Your task to perform on an android device: Go to settings Image 0: 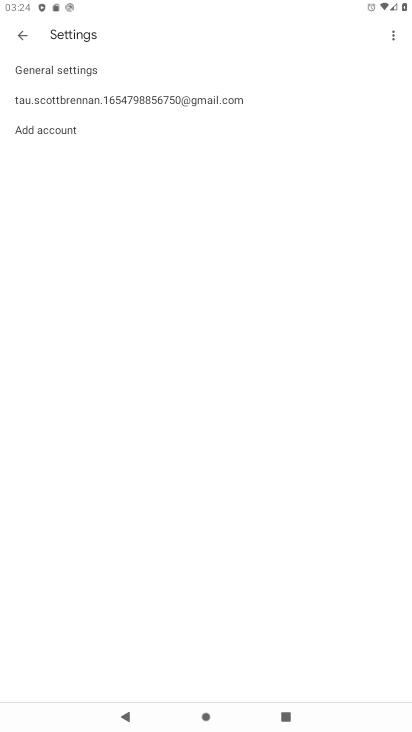
Step 0: press home button
Your task to perform on an android device: Go to settings Image 1: 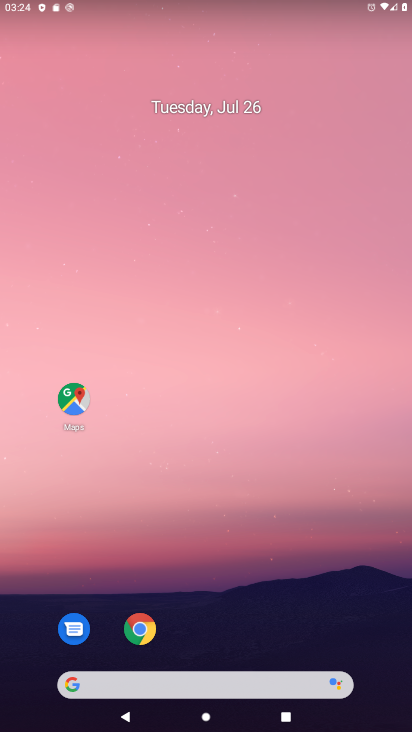
Step 1: drag from (257, 620) to (320, 157)
Your task to perform on an android device: Go to settings Image 2: 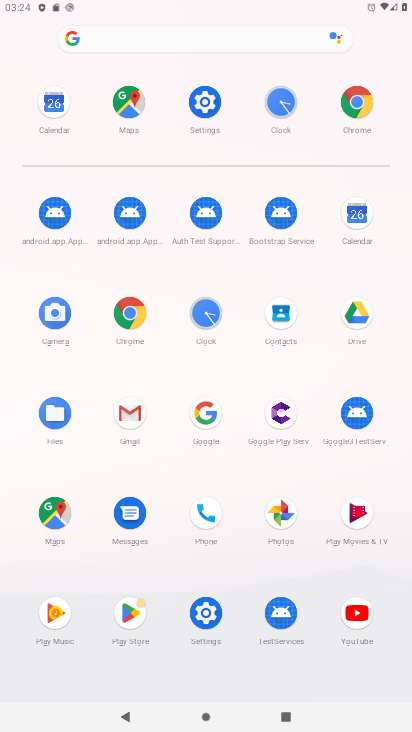
Step 2: click (211, 97)
Your task to perform on an android device: Go to settings Image 3: 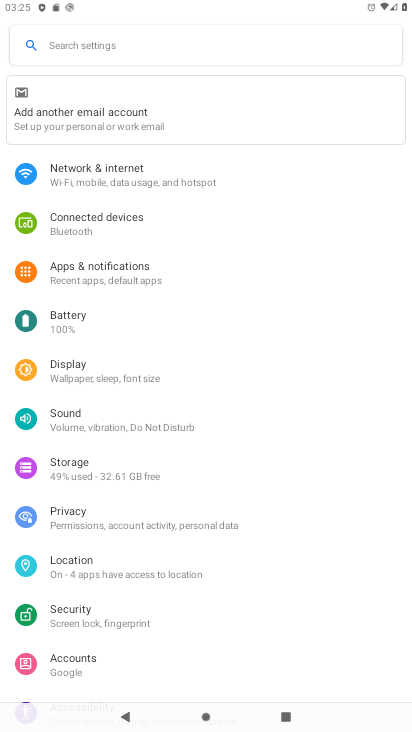
Step 3: task complete